Your task to perform on an android device: turn off data saver in the chrome app Image 0: 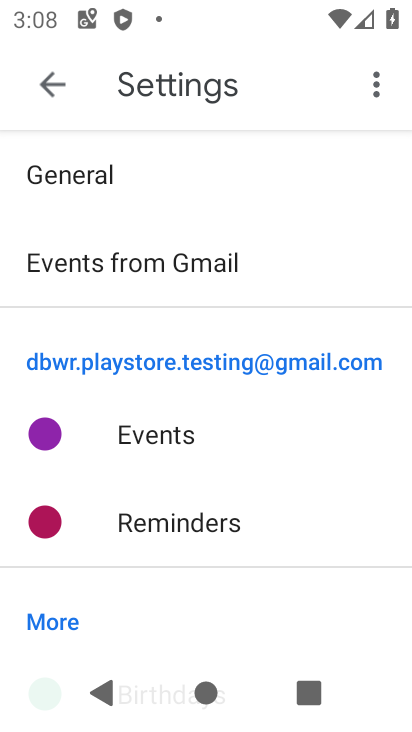
Step 0: press back button
Your task to perform on an android device: turn off data saver in the chrome app Image 1: 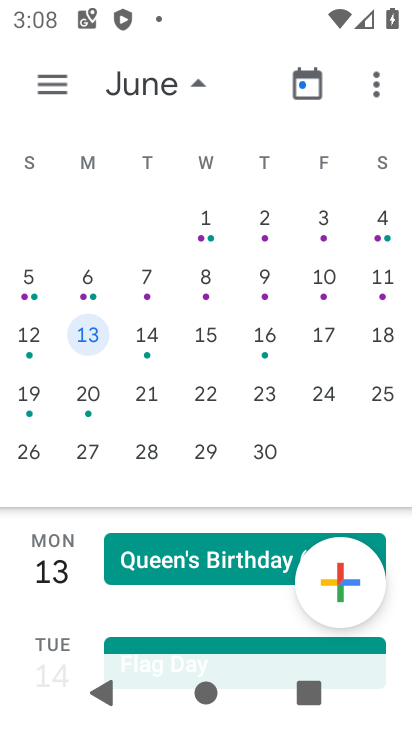
Step 1: press back button
Your task to perform on an android device: turn off data saver in the chrome app Image 2: 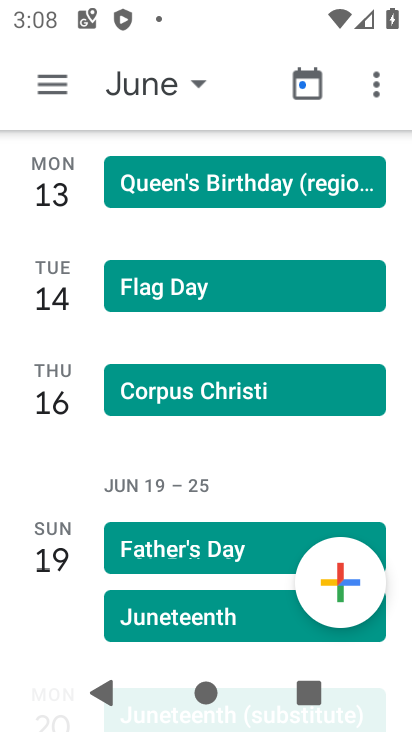
Step 2: press back button
Your task to perform on an android device: turn off data saver in the chrome app Image 3: 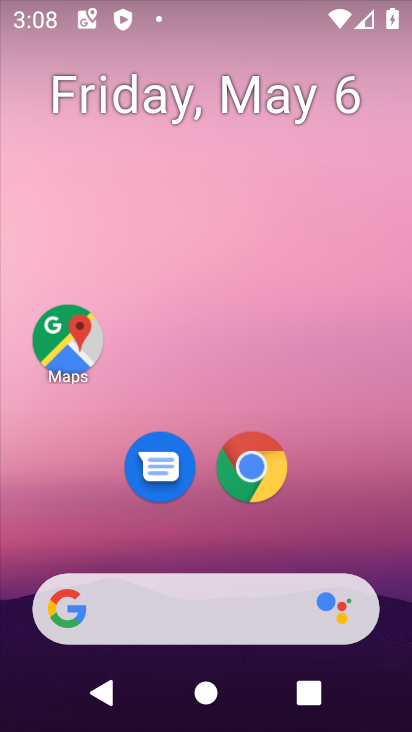
Step 3: click (253, 467)
Your task to perform on an android device: turn off data saver in the chrome app Image 4: 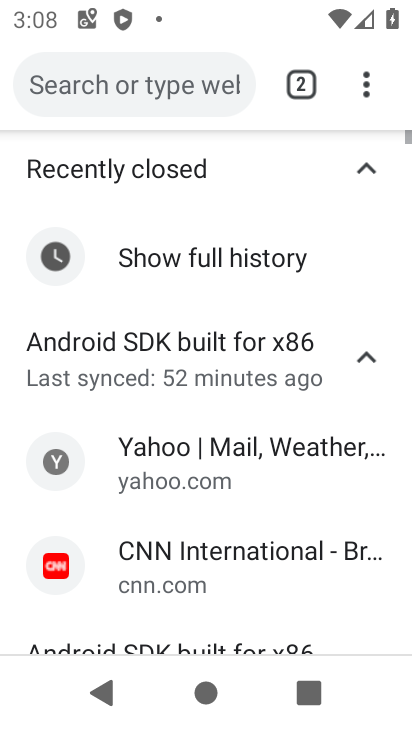
Step 4: drag from (367, 68) to (100, 492)
Your task to perform on an android device: turn off data saver in the chrome app Image 5: 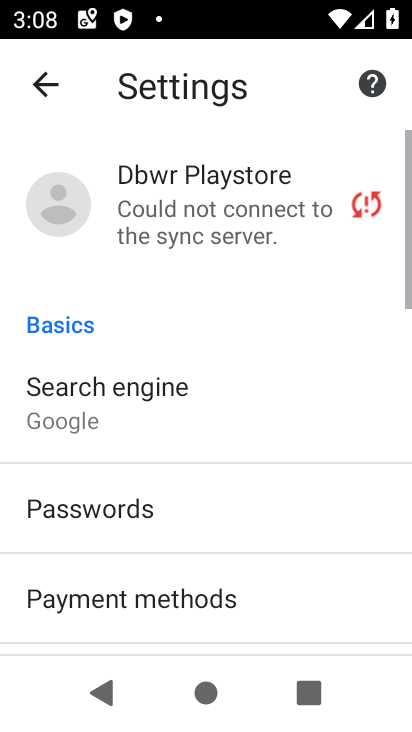
Step 5: drag from (221, 533) to (347, 75)
Your task to perform on an android device: turn off data saver in the chrome app Image 6: 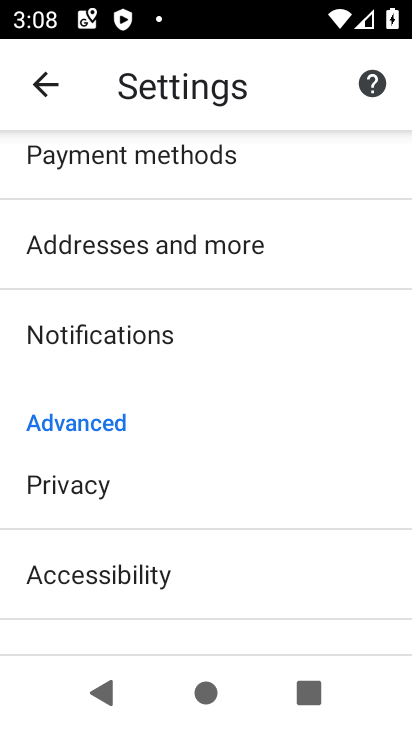
Step 6: drag from (172, 627) to (311, 157)
Your task to perform on an android device: turn off data saver in the chrome app Image 7: 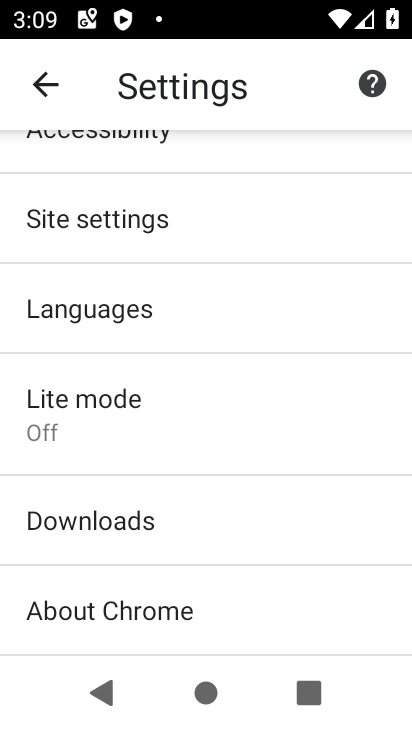
Step 7: click (104, 409)
Your task to perform on an android device: turn off data saver in the chrome app Image 8: 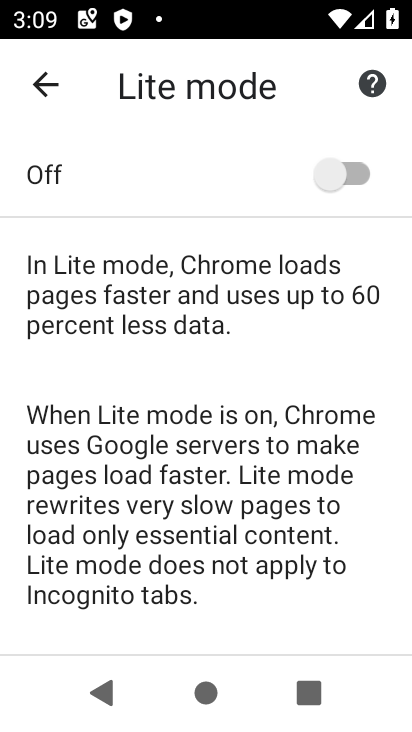
Step 8: task complete